Your task to perform on an android device: What is the news today? Image 0: 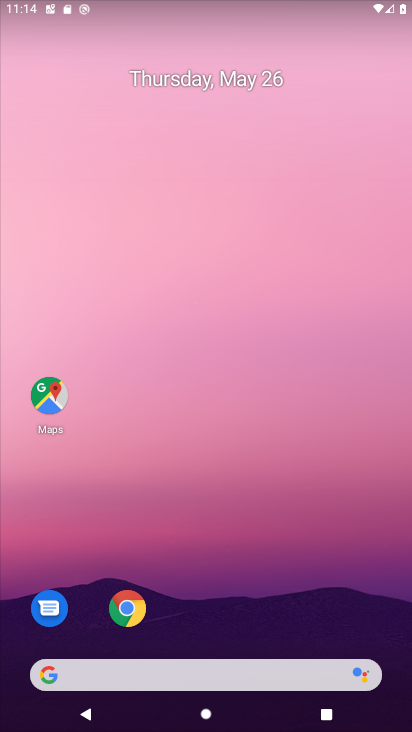
Step 0: drag from (0, 258) to (395, 270)
Your task to perform on an android device: What is the news today? Image 1: 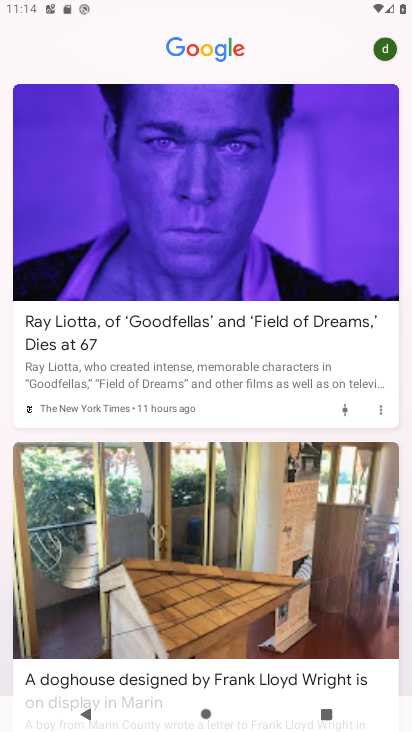
Step 1: task complete